Your task to perform on an android device: turn off location Image 0: 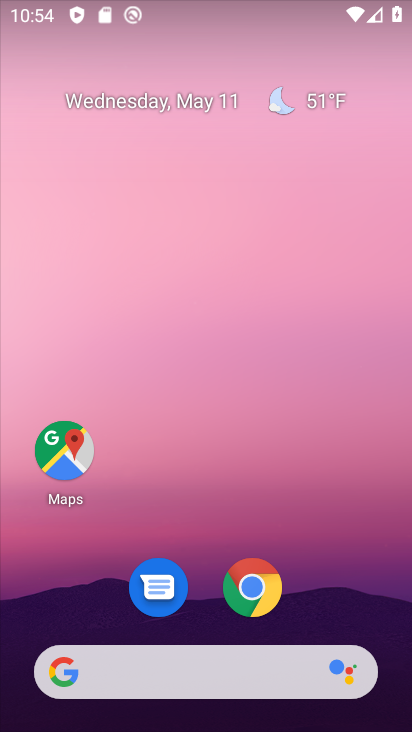
Step 0: drag from (186, 428) to (274, 58)
Your task to perform on an android device: turn off location Image 1: 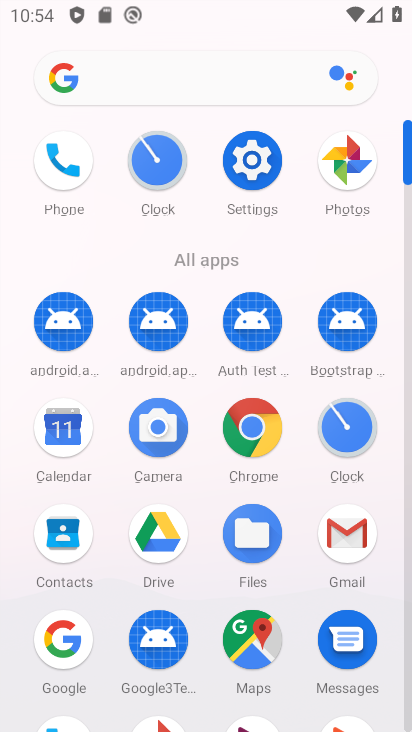
Step 1: click (254, 161)
Your task to perform on an android device: turn off location Image 2: 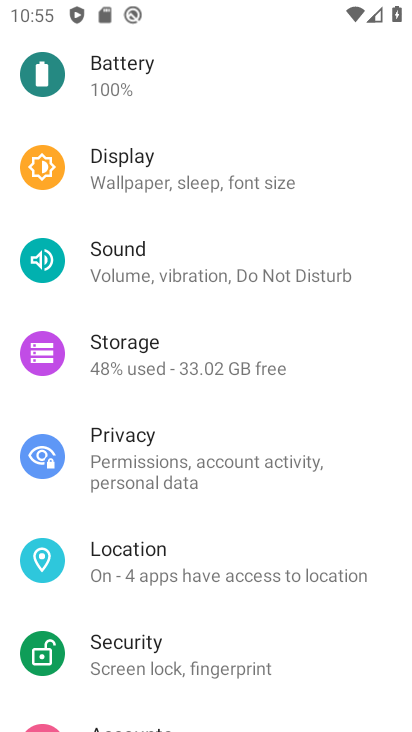
Step 2: click (163, 576)
Your task to perform on an android device: turn off location Image 3: 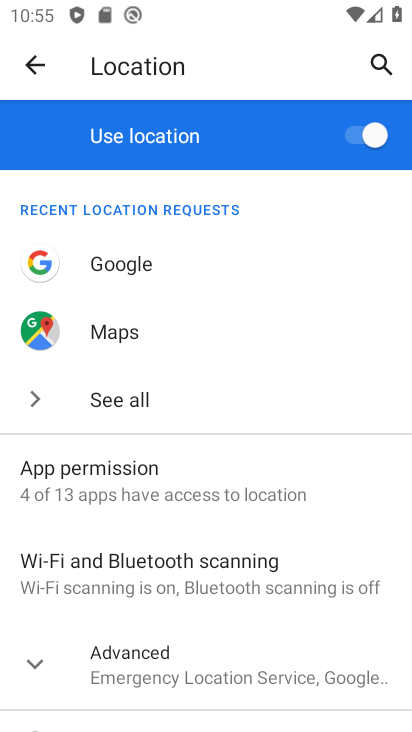
Step 3: click (367, 138)
Your task to perform on an android device: turn off location Image 4: 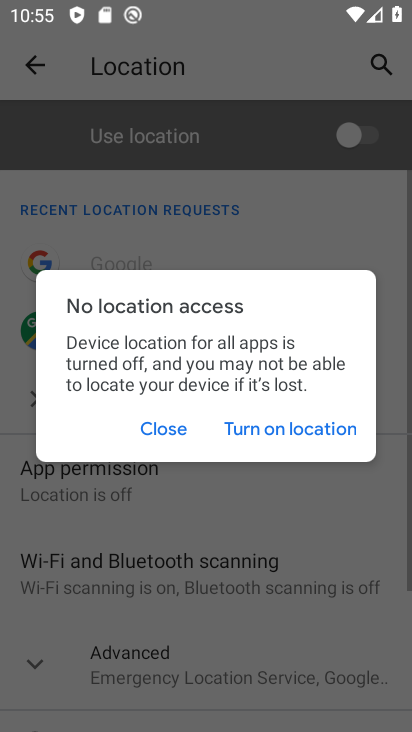
Step 4: task complete